Your task to perform on an android device: delete browsing data in the chrome app Image 0: 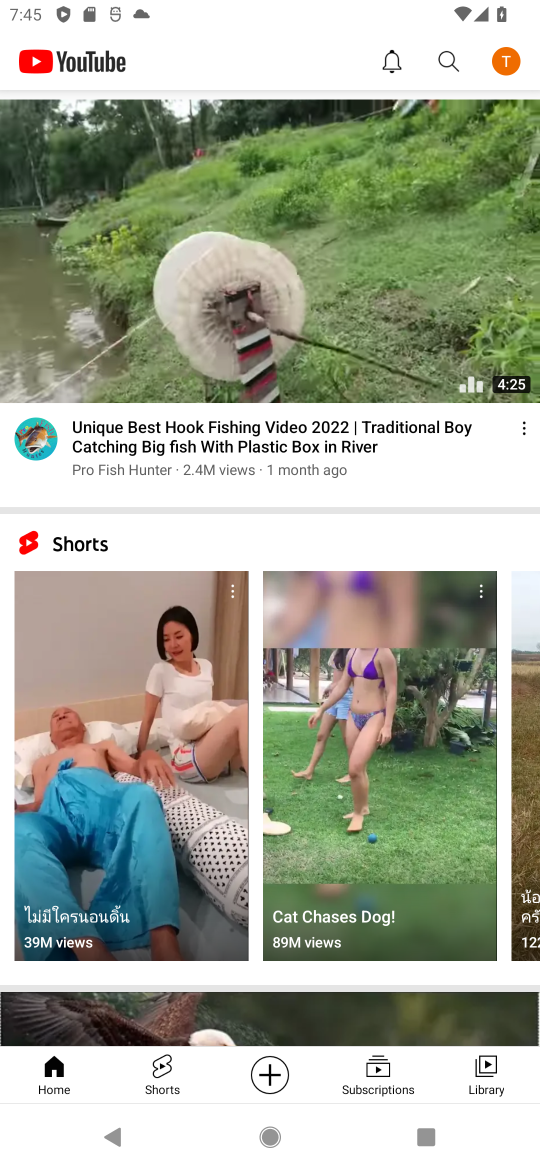
Step 0: press home button
Your task to perform on an android device: delete browsing data in the chrome app Image 1: 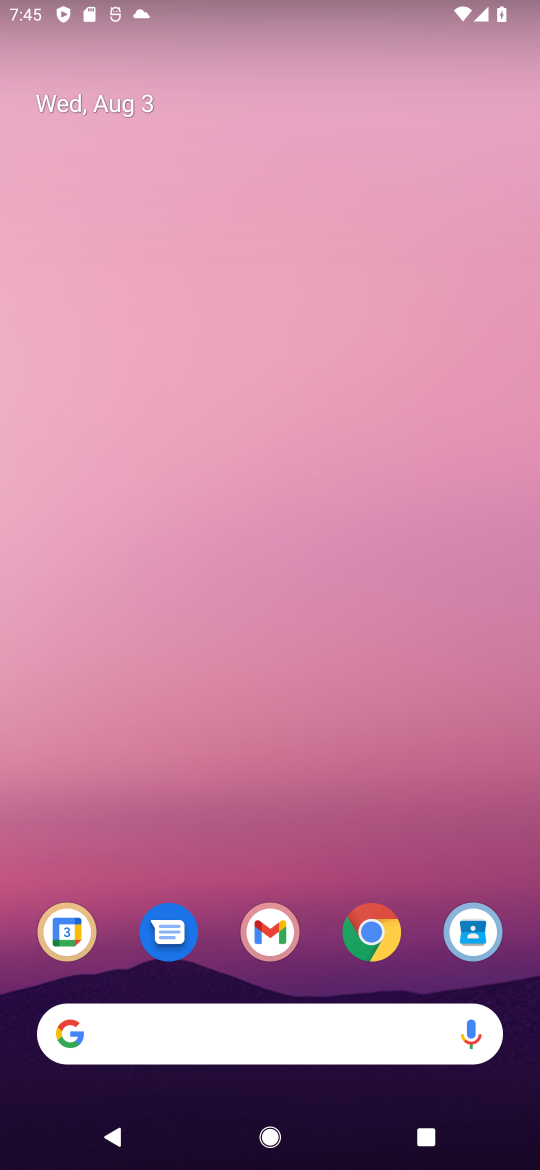
Step 1: click (386, 928)
Your task to perform on an android device: delete browsing data in the chrome app Image 2: 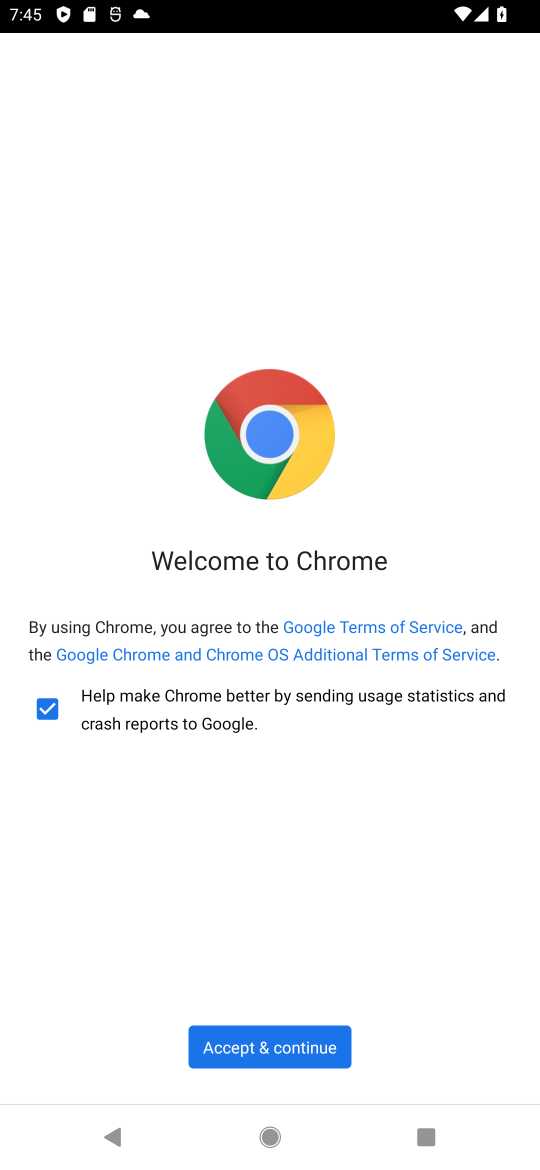
Step 2: click (301, 1043)
Your task to perform on an android device: delete browsing data in the chrome app Image 3: 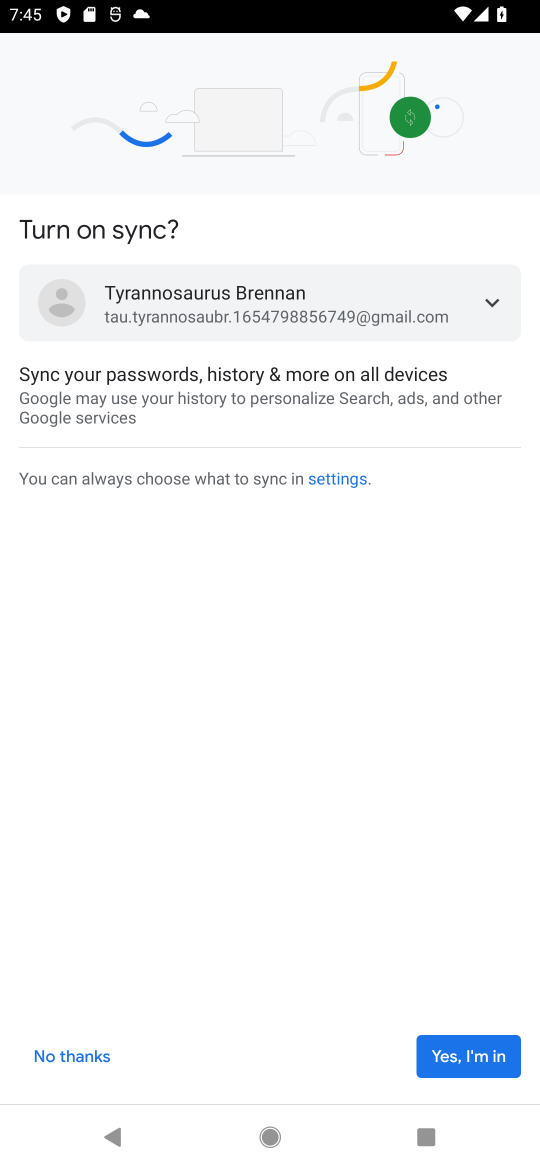
Step 3: click (432, 1064)
Your task to perform on an android device: delete browsing data in the chrome app Image 4: 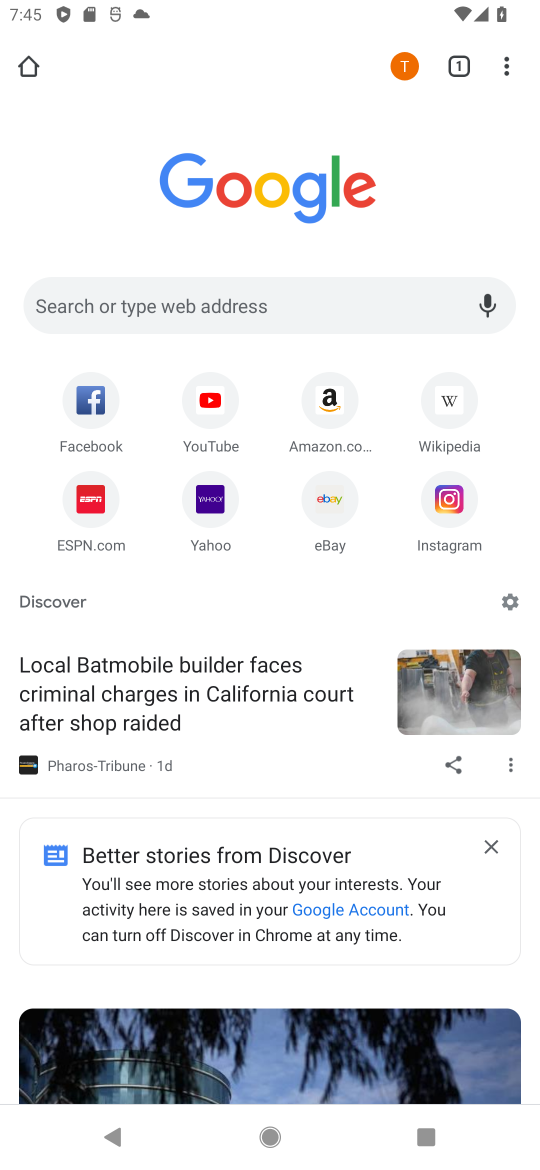
Step 4: click (502, 55)
Your task to perform on an android device: delete browsing data in the chrome app Image 5: 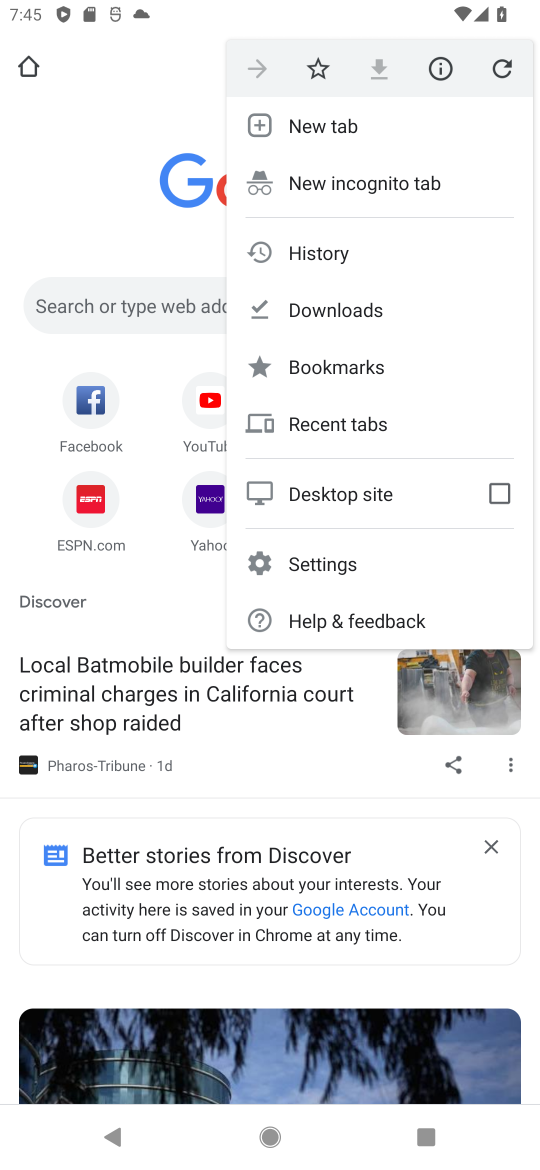
Step 5: click (329, 262)
Your task to perform on an android device: delete browsing data in the chrome app Image 6: 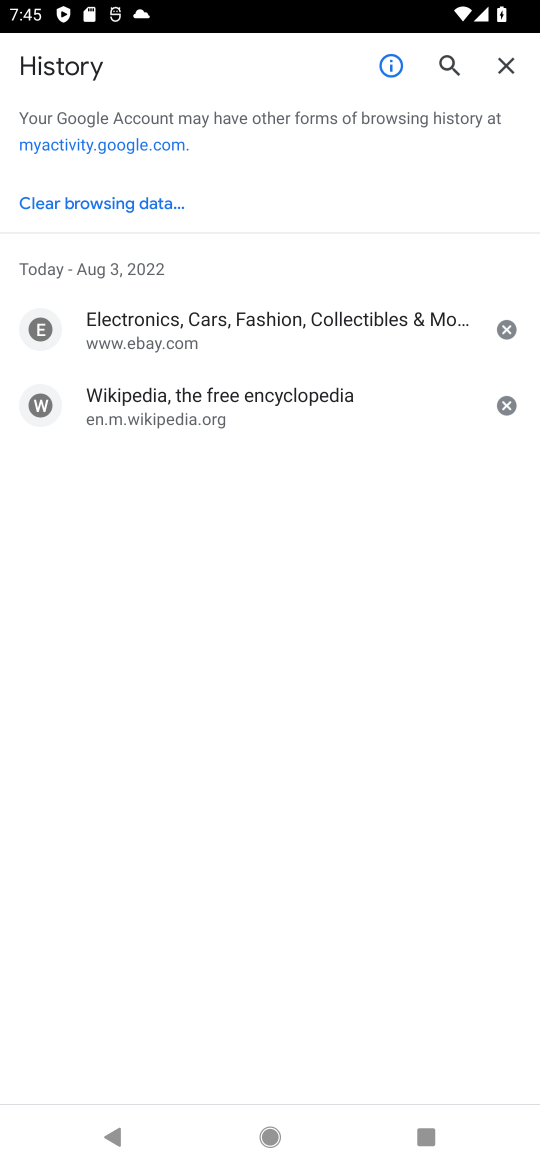
Step 6: click (169, 204)
Your task to perform on an android device: delete browsing data in the chrome app Image 7: 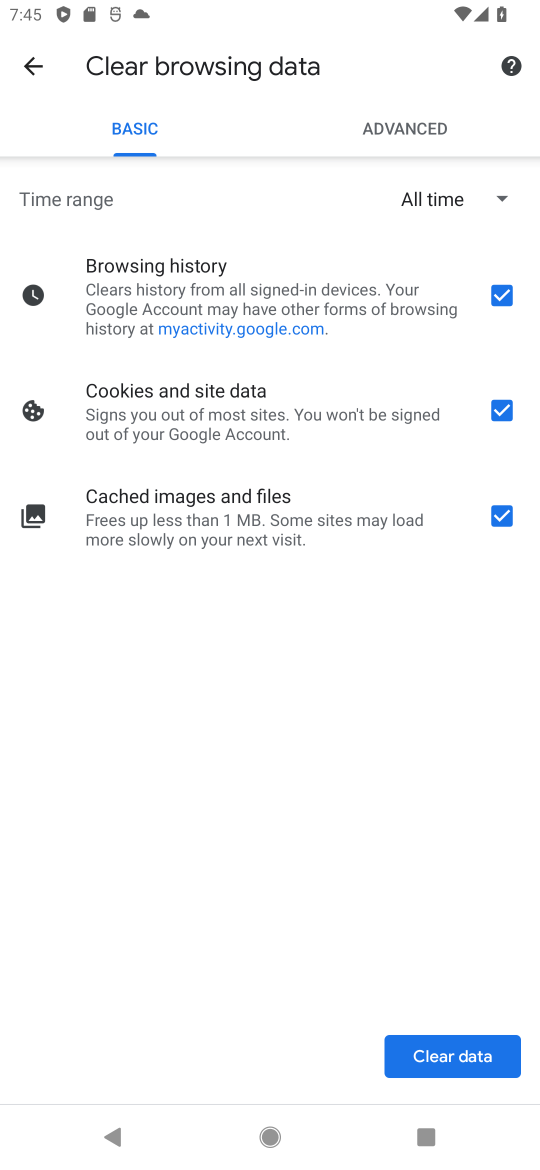
Step 7: click (426, 1070)
Your task to perform on an android device: delete browsing data in the chrome app Image 8: 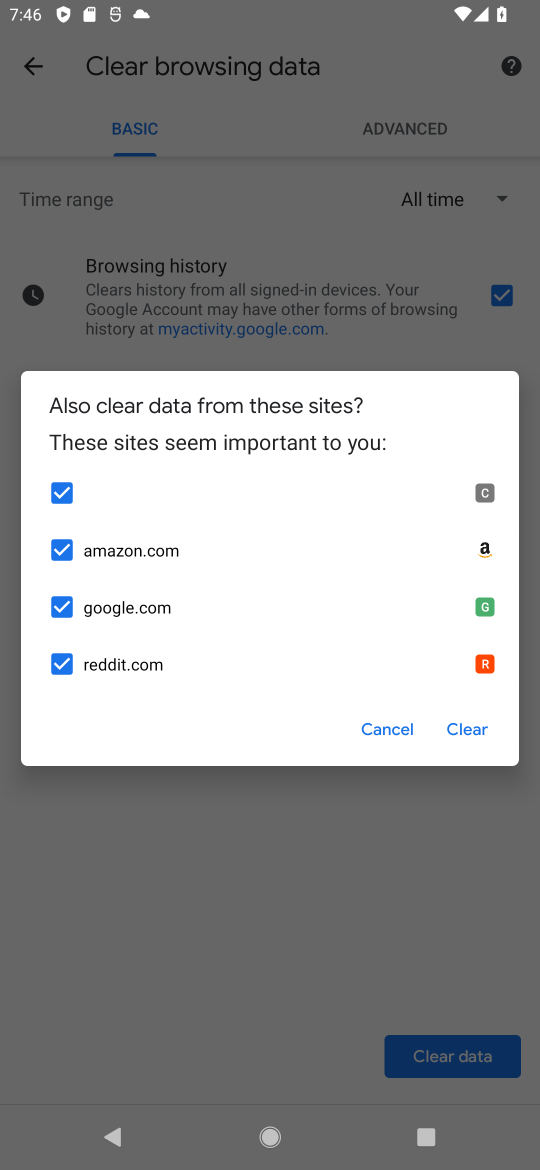
Step 8: click (482, 730)
Your task to perform on an android device: delete browsing data in the chrome app Image 9: 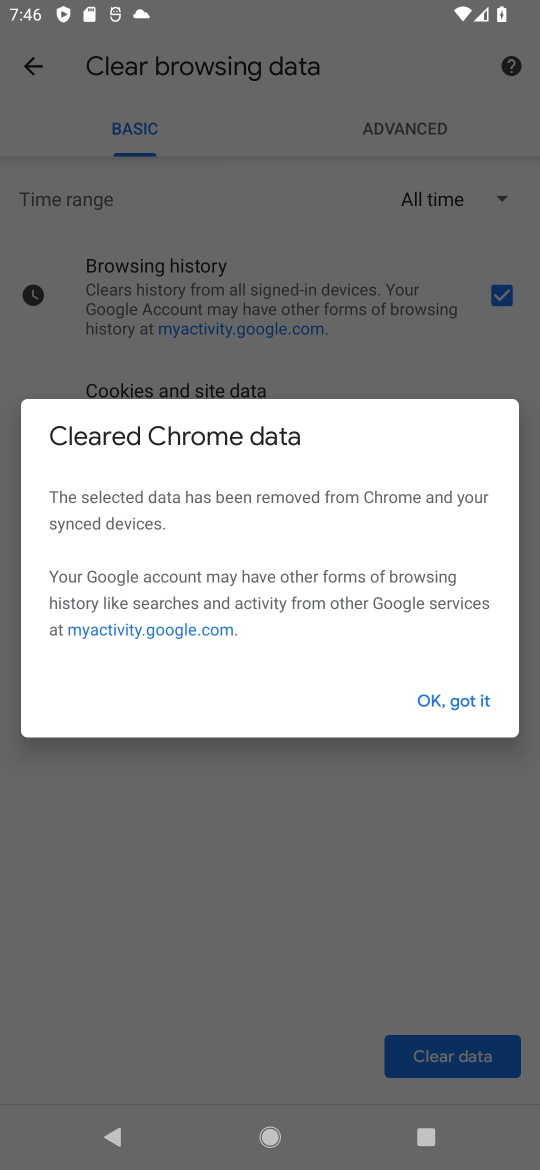
Step 9: click (458, 695)
Your task to perform on an android device: delete browsing data in the chrome app Image 10: 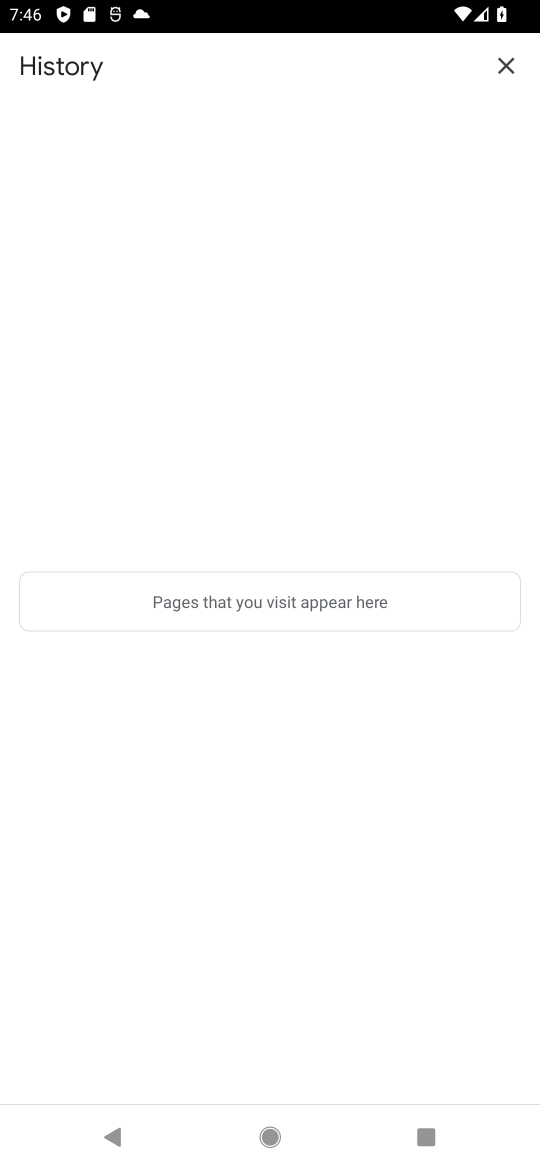
Step 10: task complete